Your task to perform on an android device: turn off picture-in-picture Image 0: 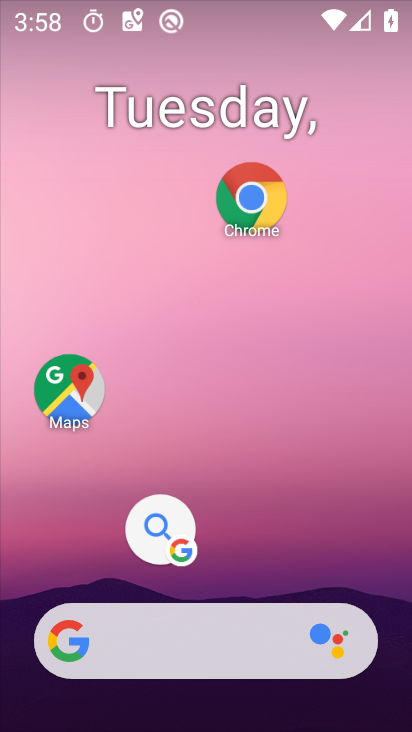
Step 0: click (254, 191)
Your task to perform on an android device: turn off picture-in-picture Image 1: 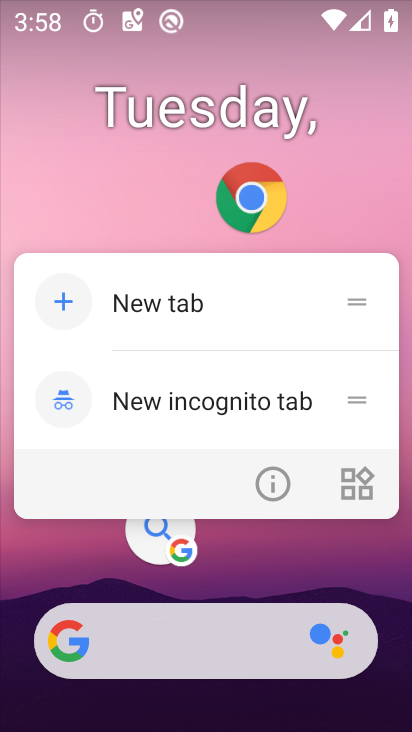
Step 1: click (273, 483)
Your task to perform on an android device: turn off picture-in-picture Image 2: 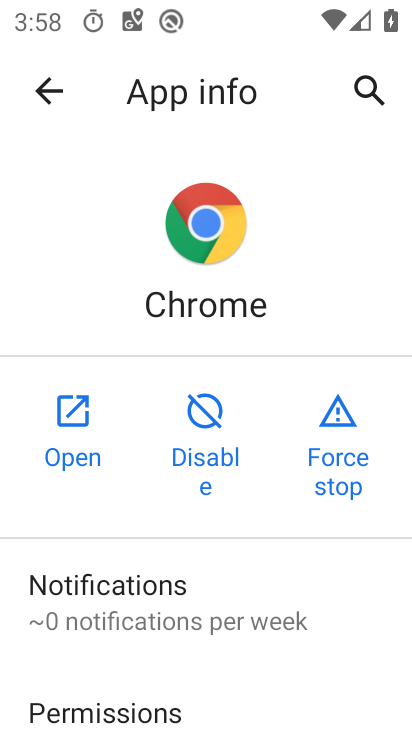
Step 2: drag from (180, 708) to (218, 357)
Your task to perform on an android device: turn off picture-in-picture Image 3: 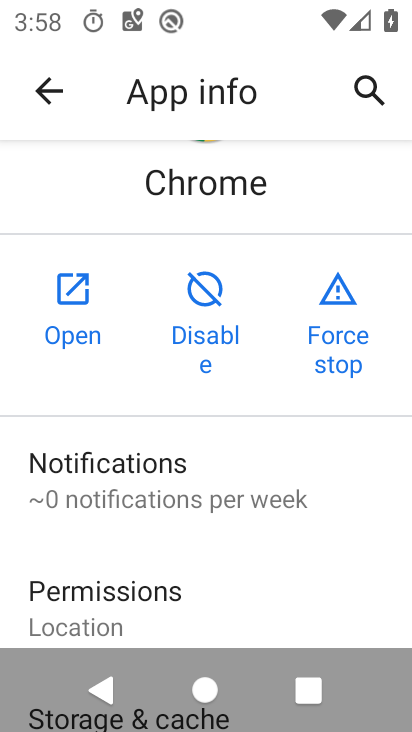
Step 3: drag from (210, 636) to (248, 287)
Your task to perform on an android device: turn off picture-in-picture Image 4: 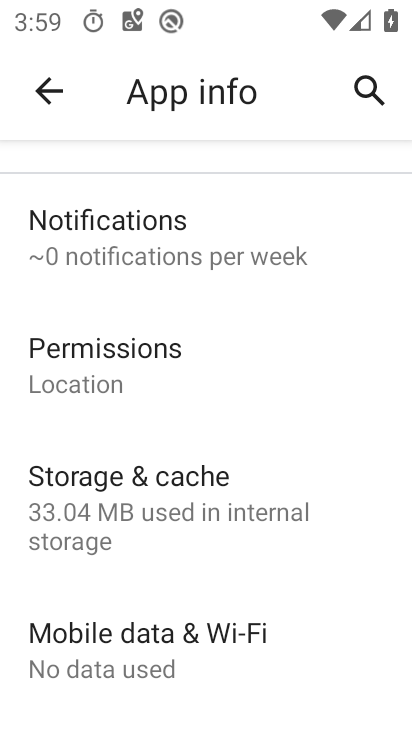
Step 4: drag from (221, 694) to (255, 348)
Your task to perform on an android device: turn off picture-in-picture Image 5: 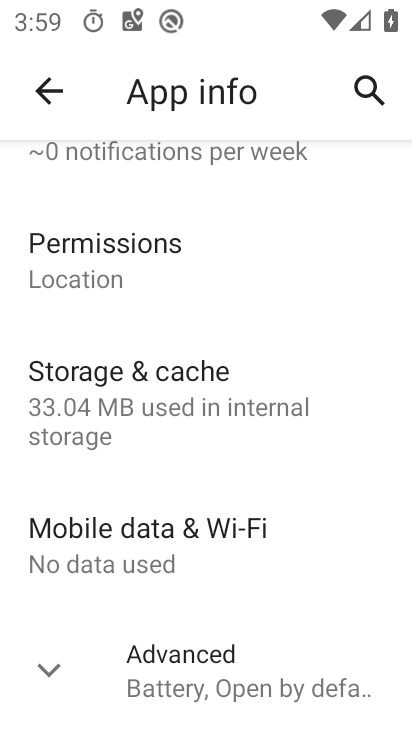
Step 5: click (247, 682)
Your task to perform on an android device: turn off picture-in-picture Image 6: 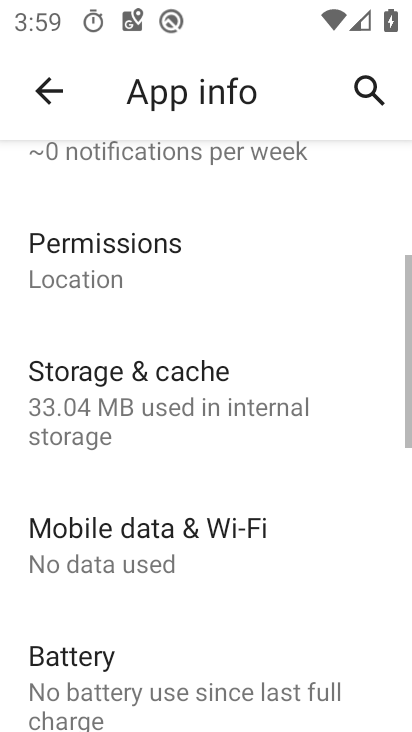
Step 6: drag from (309, 653) to (331, 321)
Your task to perform on an android device: turn off picture-in-picture Image 7: 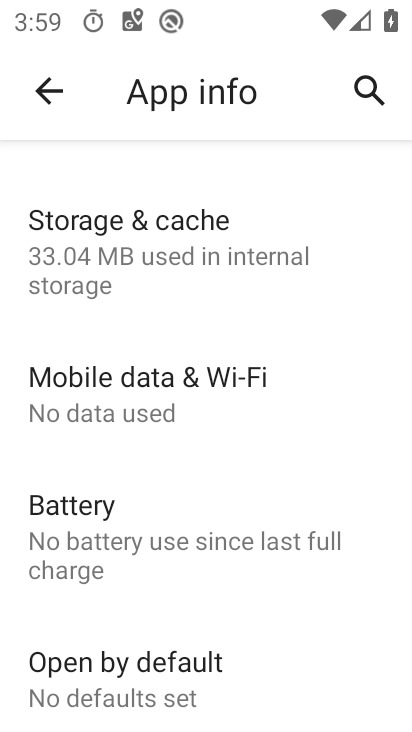
Step 7: drag from (208, 708) to (239, 409)
Your task to perform on an android device: turn off picture-in-picture Image 8: 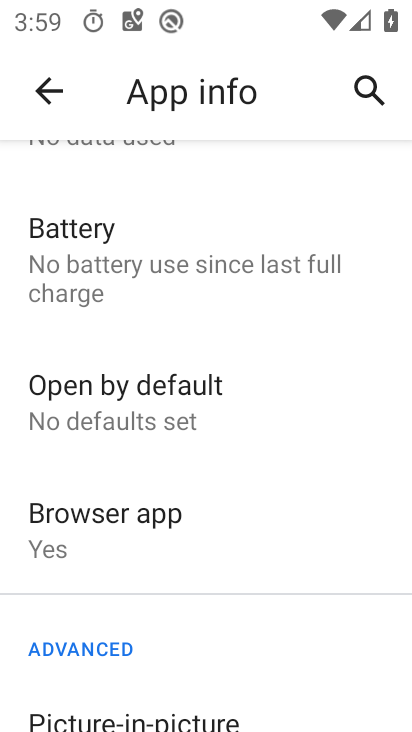
Step 8: drag from (172, 678) to (176, 389)
Your task to perform on an android device: turn off picture-in-picture Image 9: 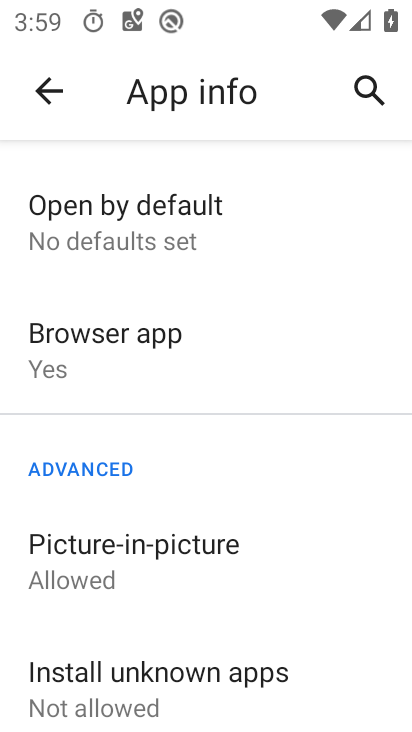
Step 9: click (169, 559)
Your task to perform on an android device: turn off picture-in-picture Image 10: 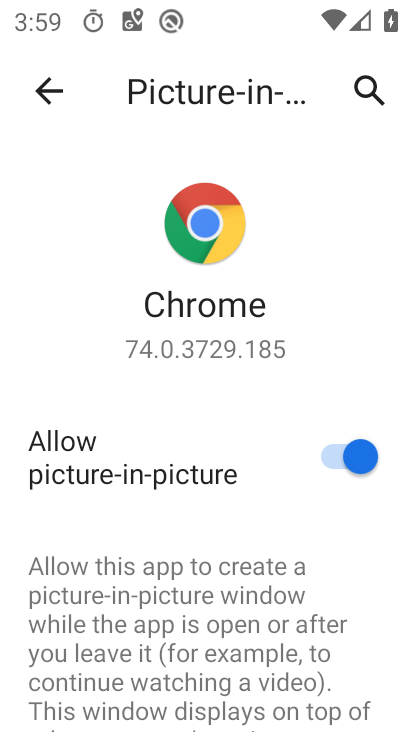
Step 10: click (332, 455)
Your task to perform on an android device: turn off picture-in-picture Image 11: 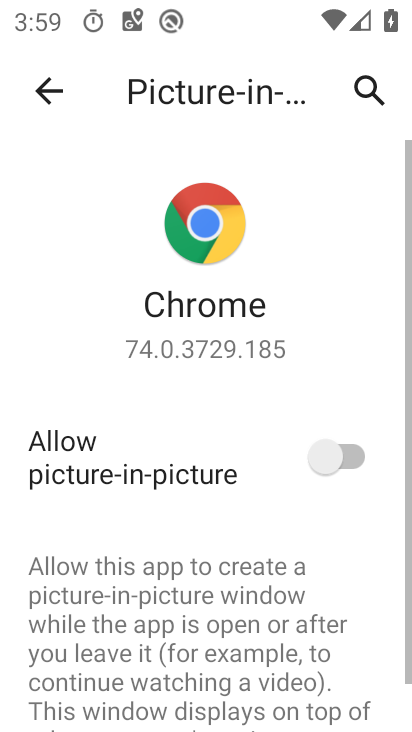
Step 11: task complete